Your task to perform on an android device: toggle javascript in the chrome app Image 0: 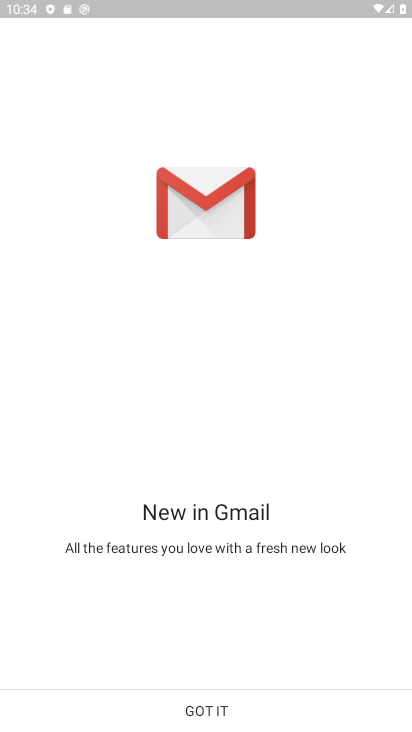
Step 0: press home button
Your task to perform on an android device: toggle javascript in the chrome app Image 1: 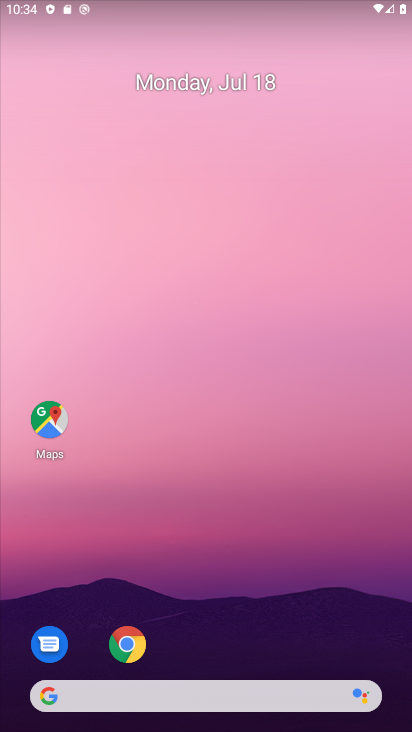
Step 1: click (128, 649)
Your task to perform on an android device: toggle javascript in the chrome app Image 2: 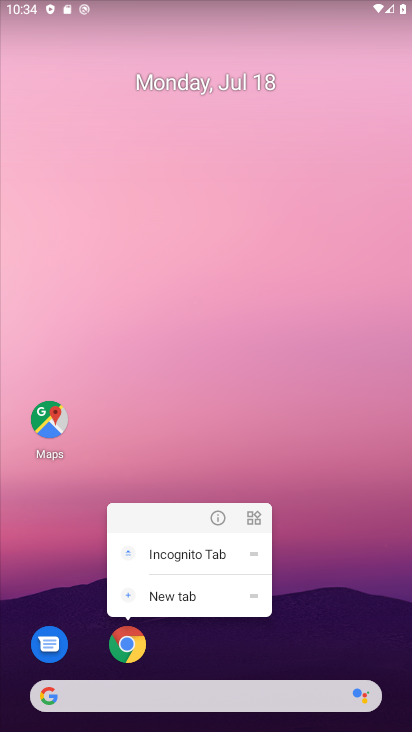
Step 2: click (128, 642)
Your task to perform on an android device: toggle javascript in the chrome app Image 3: 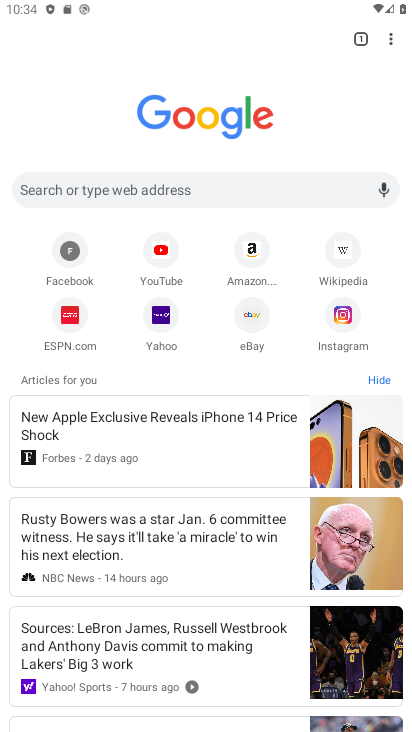
Step 3: click (390, 34)
Your task to perform on an android device: toggle javascript in the chrome app Image 4: 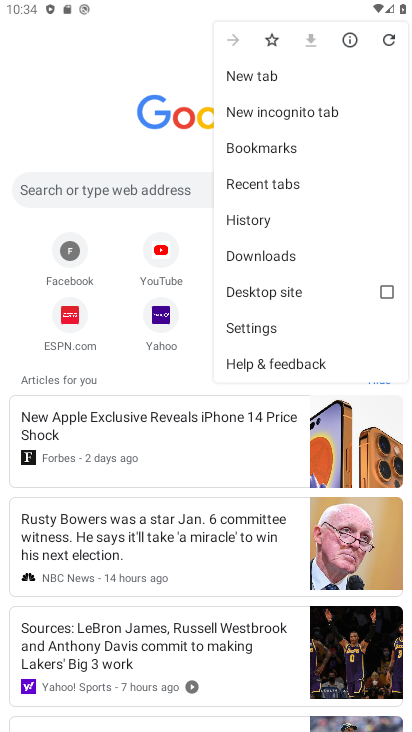
Step 4: click (272, 332)
Your task to perform on an android device: toggle javascript in the chrome app Image 5: 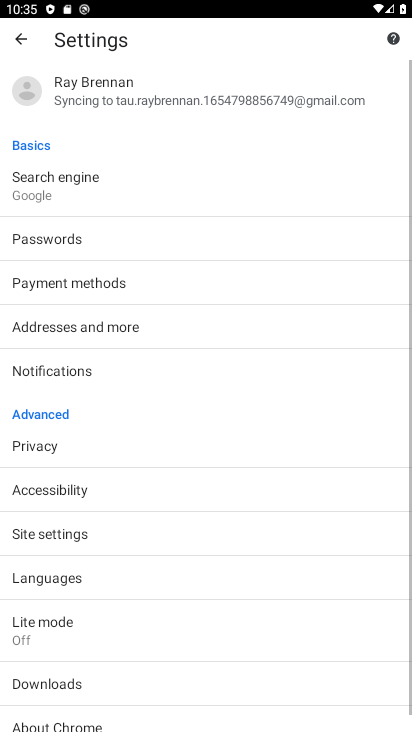
Step 5: click (63, 533)
Your task to perform on an android device: toggle javascript in the chrome app Image 6: 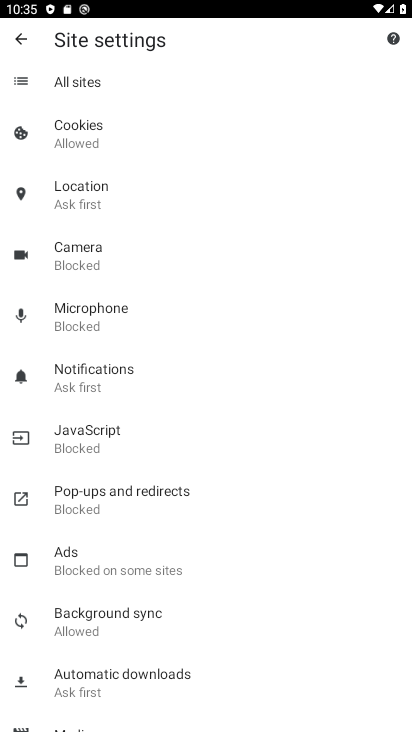
Step 6: click (87, 443)
Your task to perform on an android device: toggle javascript in the chrome app Image 7: 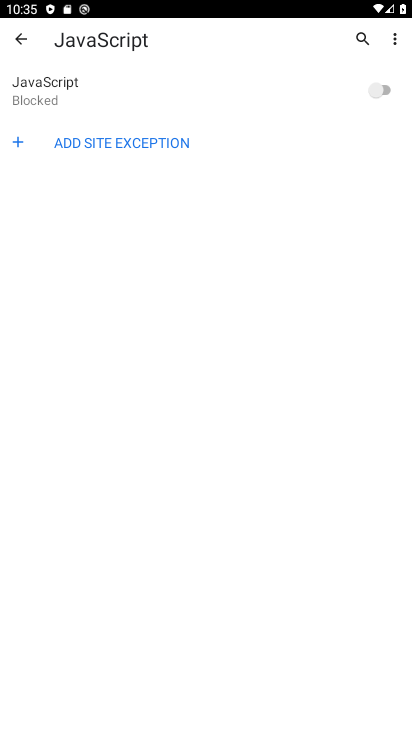
Step 7: click (372, 98)
Your task to perform on an android device: toggle javascript in the chrome app Image 8: 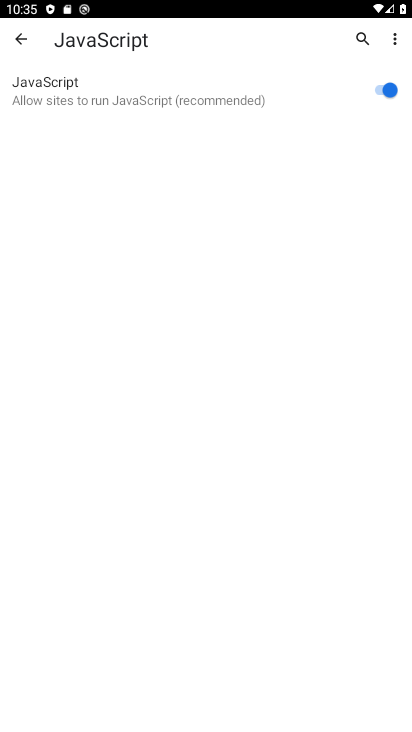
Step 8: task complete